Your task to perform on an android device: check out phone information Image 0: 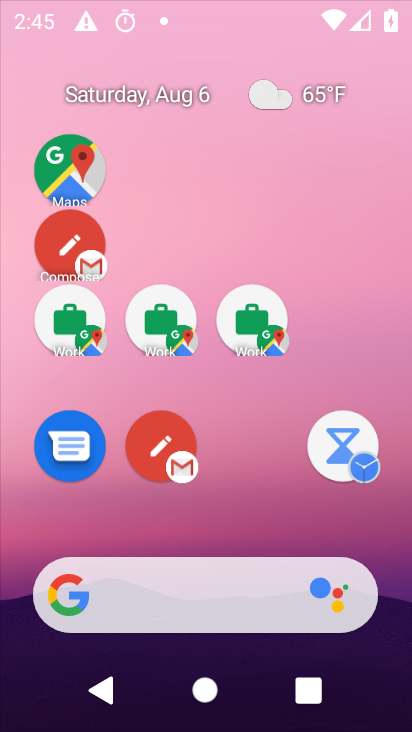
Step 0: drag from (221, 317) to (243, 291)
Your task to perform on an android device: check out phone information Image 1: 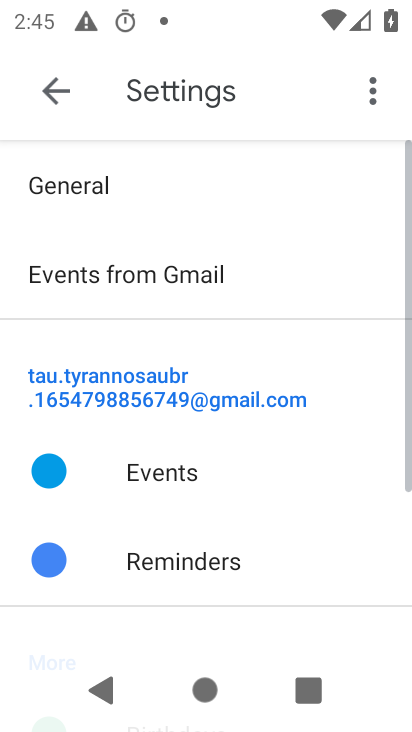
Step 1: drag from (244, 507) to (214, 322)
Your task to perform on an android device: check out phone information Image 2: 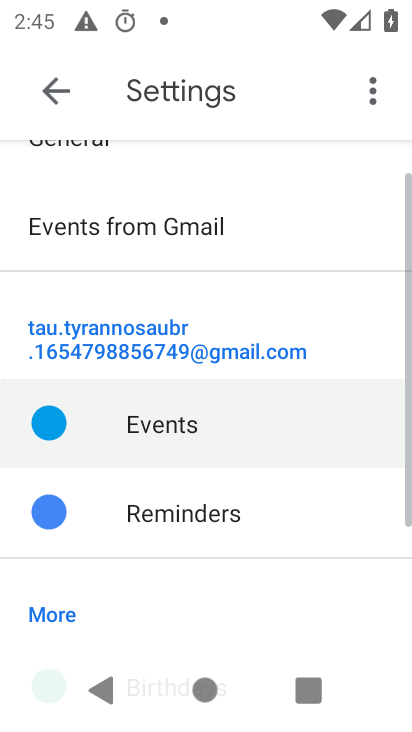
Step 2: drag from (223, 477) to (224, 392)
Your task to perform on an android device: check out phone information Image 3: 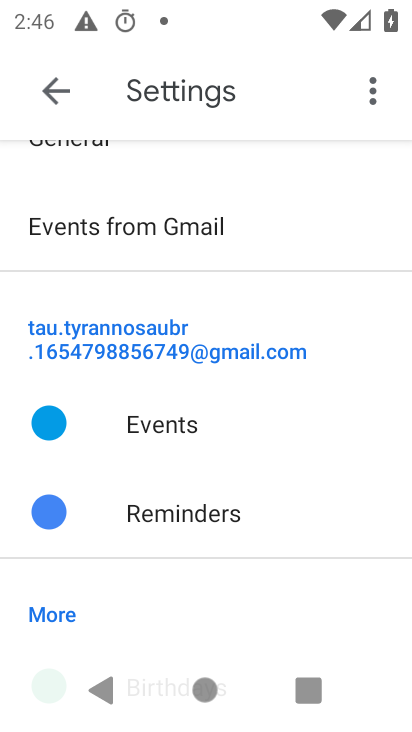
Step 3: click (46, 98)
Your task to perform on an android device: check out phone information Image 4: 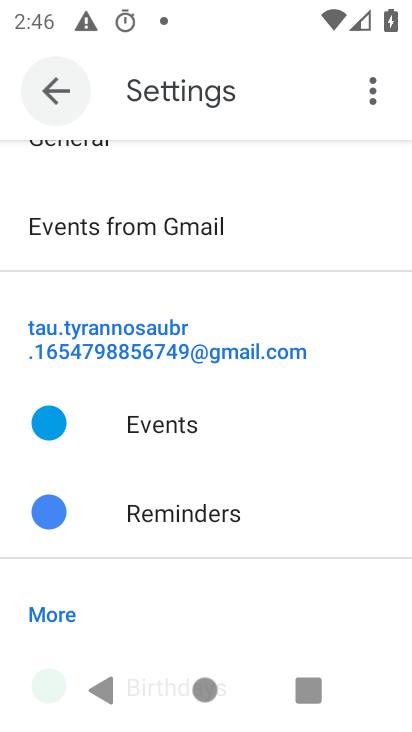
Step 4: click (48, 93)
Your task to perform on an android device: check out phone information Image 5: 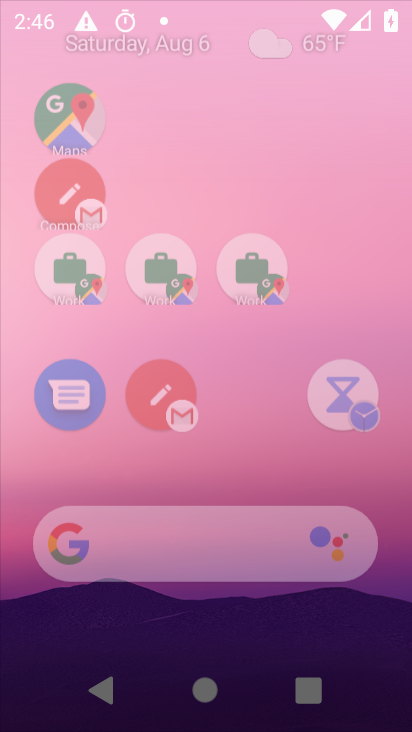
Step 5: click (49, 93)
Your task to perform on an android device: check out phone information Image 6: 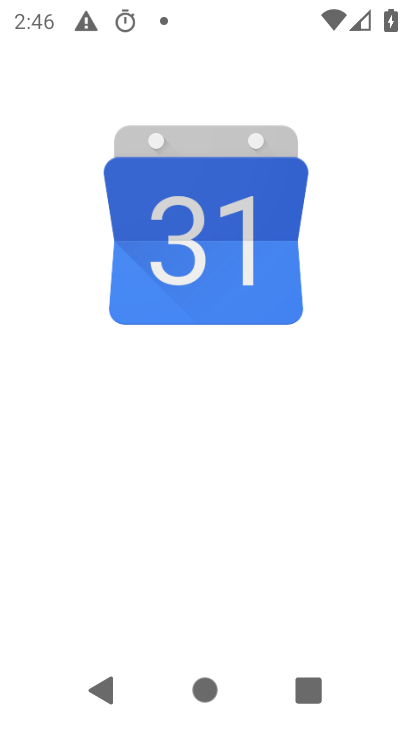
Step 6: drag from (284, 652) to (224, 103)
Your task to perform on an android device: check out phone information Image 7: 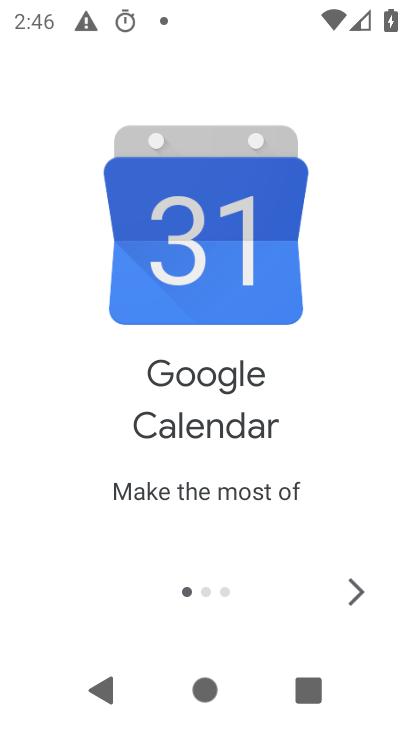
Step 7: drag from (316, 545) to (245, 3)
Your task to perform on an android device: check out phone information Image 8: 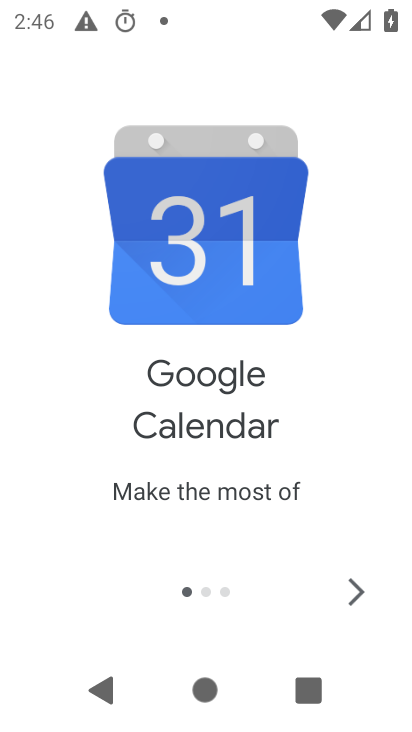
Step 8: drag from (300, 361) to (253, 29)
Your task to perform on an android device: check out phone information Image 9: 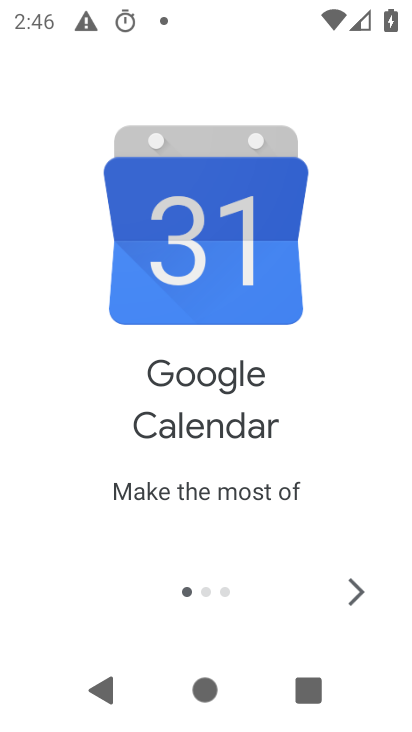
Step 9: click (363, 598)
Your task to perform on an android device: check out phone information Image 10: 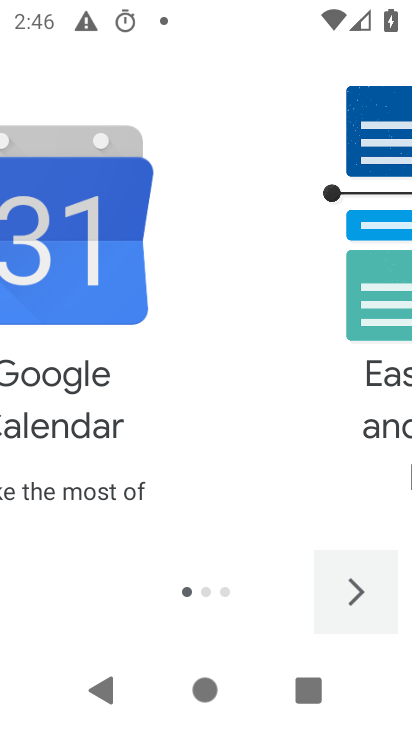
Step 10: click (363, 597)
Your task to perform on an android device: check out phone information Image 11: 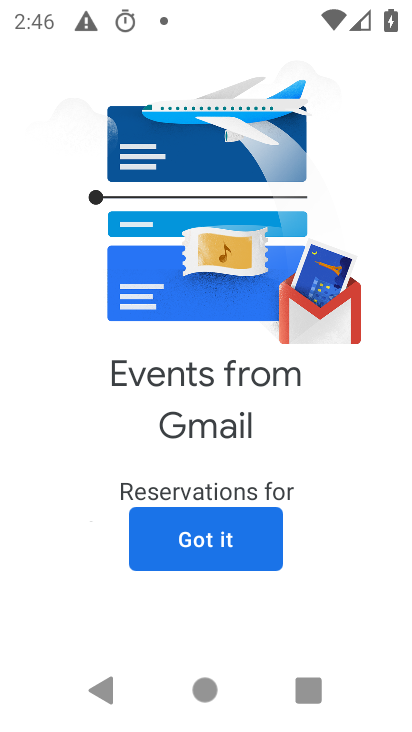
Step 11: click (192, 547)
Your task to perform on an android device: check out phone information Image 12: 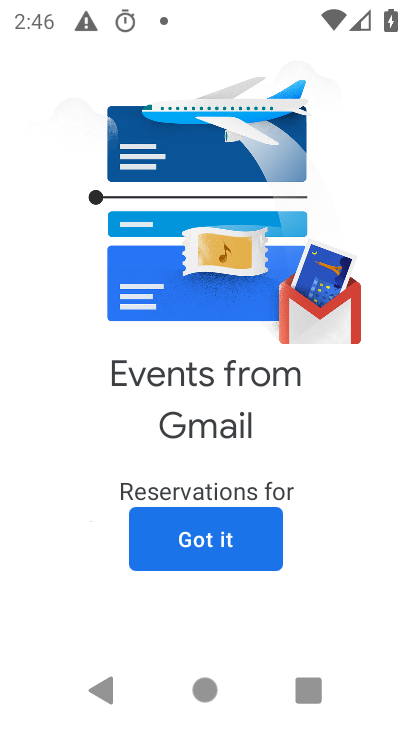
Step 12: click (211, 530)
Your task to perform on an android device: check out phone information Image 13: 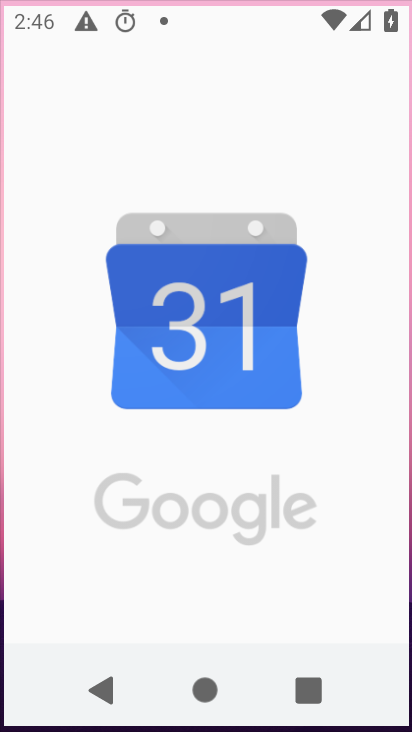
Step 13: click (216, 532)
Your task to perform on an android device: check out phone information Image 14: 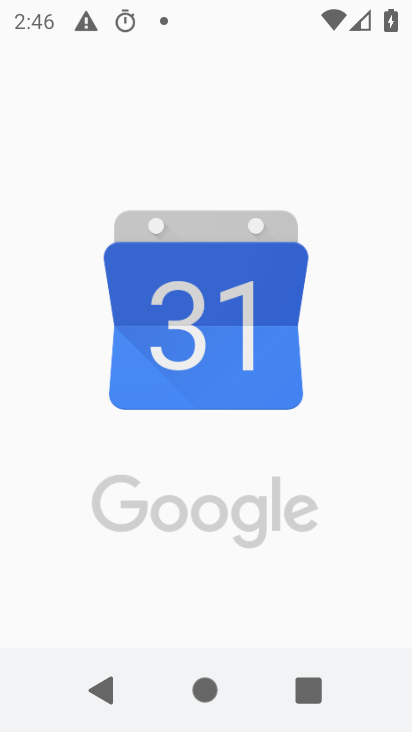
Step 14: click (216, 532)
Your task to perform on an android device: check out phone information Image 15: 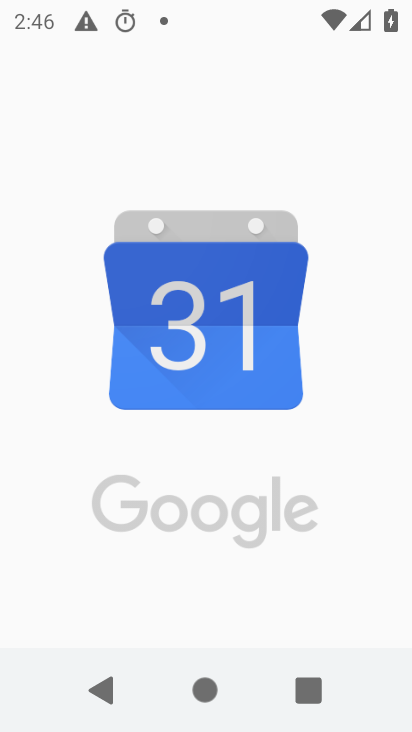
Step 15: drag from (216, 532) to (227, 499)
Your task to perform on an android device: check out phone information Image 16: 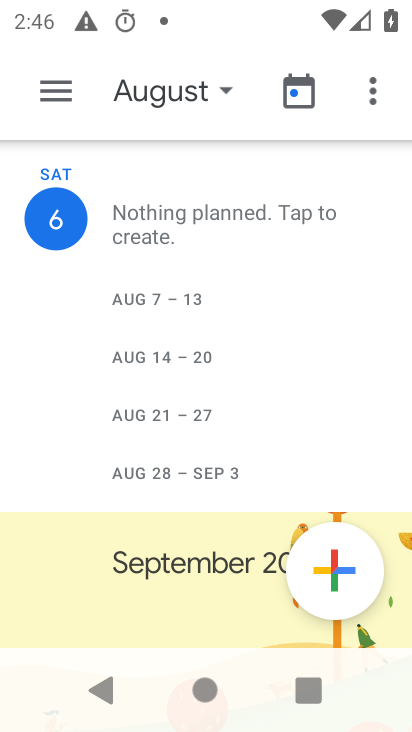
Step 16: press back button
Your task to perform on an android device: check out phone information Image 17: 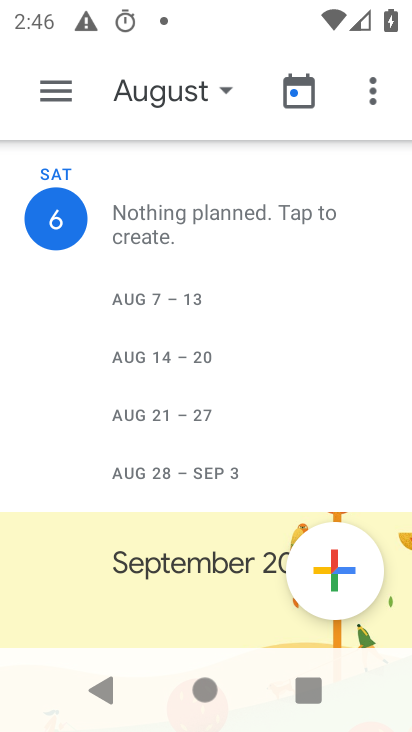
Step 17: press back button
Your task to perform on an android device: check out phone information Image 18: 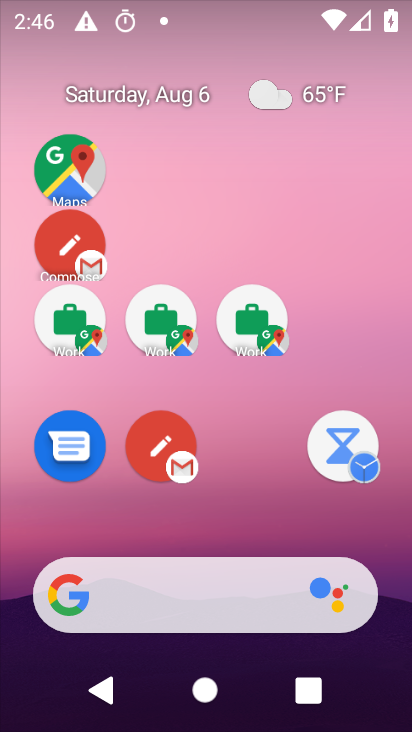
Step 18: drag from (253, 442) to (210, 217)
Your task to perform on an android device: check out phone information Image 19: 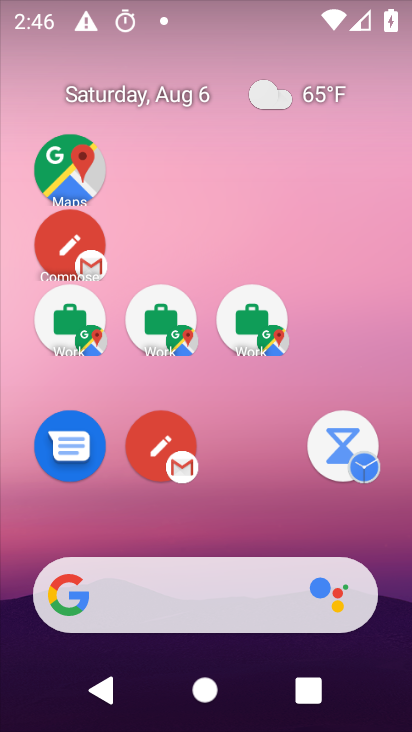
Step 19: drag from (238, 494) to (239, 202)
Your task to perform on an android device: check out phone information Image 20: 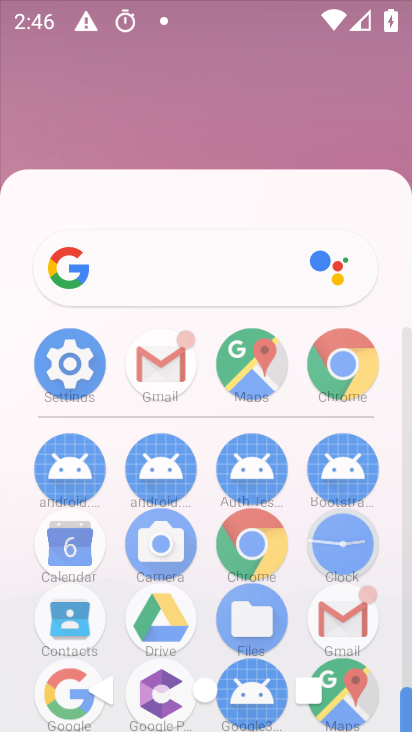
Step 20: drag from (238, 253) to (218, 64)
Your task to perform on an android device: check out phone information Image 21: 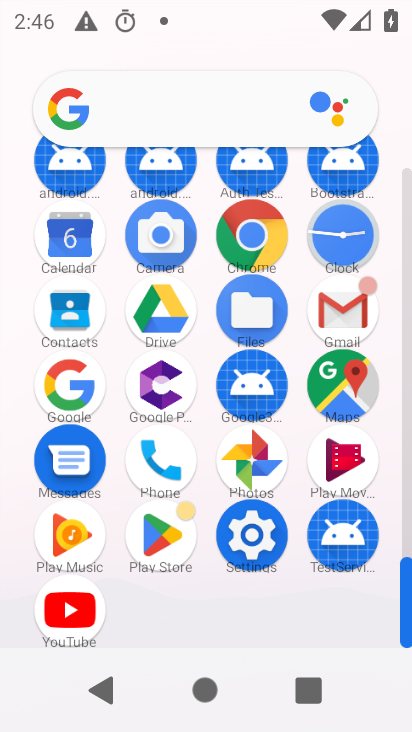
Step 21: click (255, 543)
Your task to perform on an android device: check out phone information Image 22: 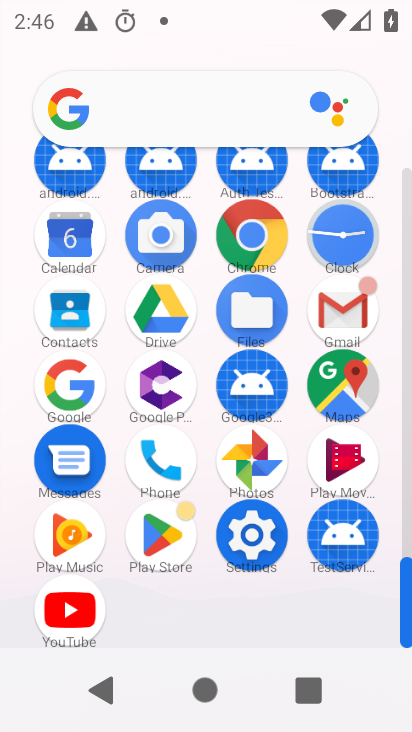
Step 22: click (258, 548)
Your task to perform on an android device: check out phone information Image 23: 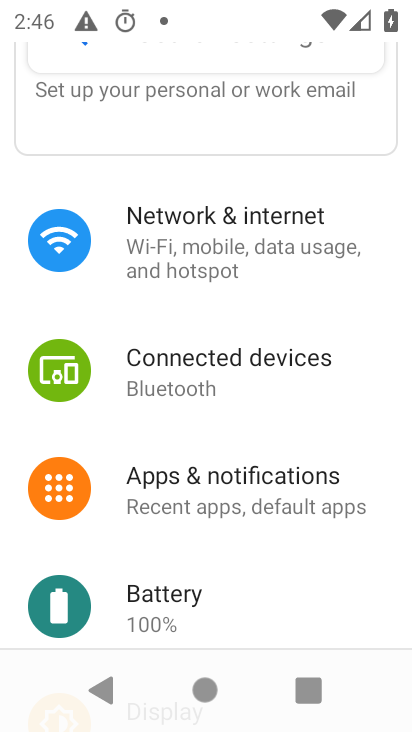
Step 23: drag from (180, 466) to (150, 265)
Your task to perform on an android device: check out phone information Image 24: 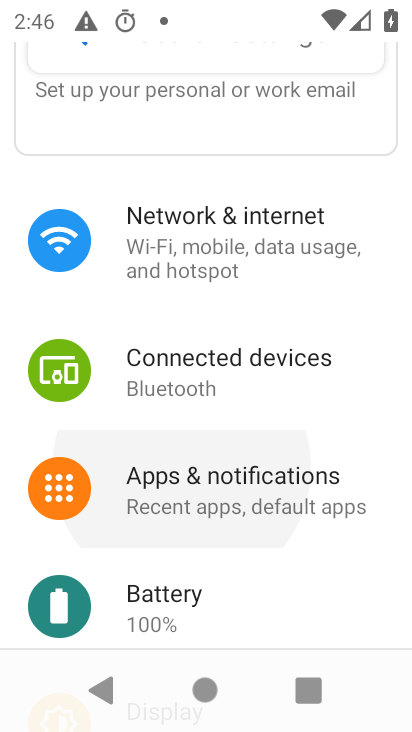
Step 24: drag from (170, 312) to (162, 263)
Your task to perform on an android device: check out phone information Image 25: 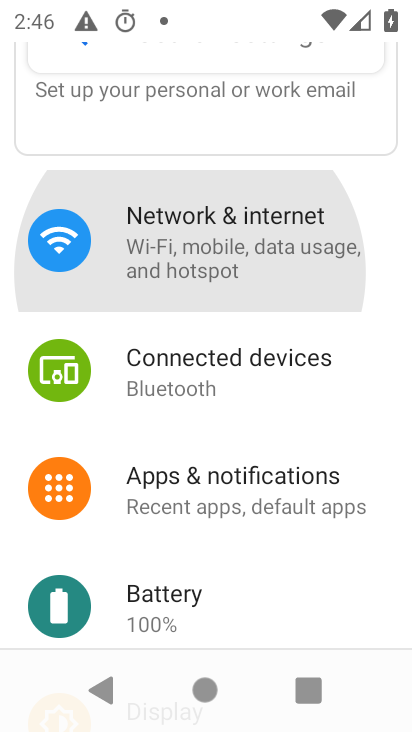
Step 25: drag from (220, 476) to (205, 256)
Your task to perform on an android device: check out phone information Image 26: 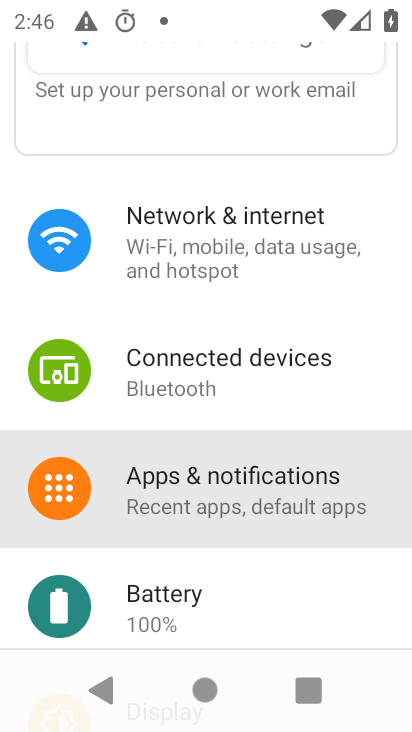
Step 26: drag from (238, 419) to (204, 291)
Your task to perform on an android device: check out phone information Image 27: 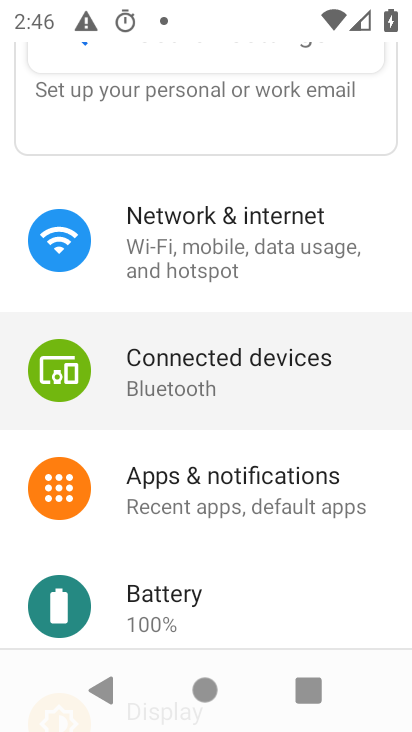
Step 27: drag from (192, 489) to (174, 354)
Your task to perform on an android device: check out phone information Image 28: 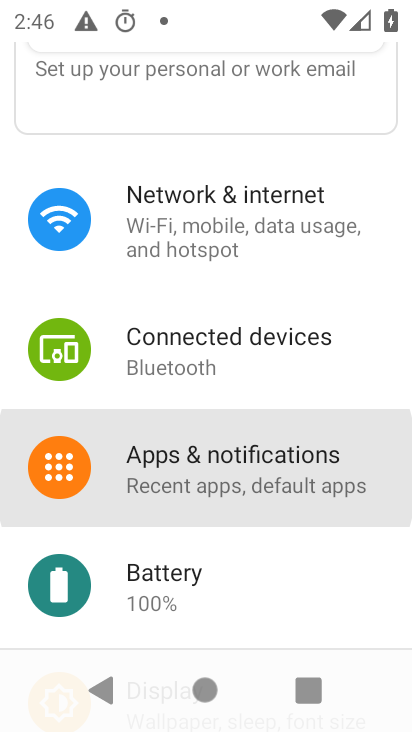
Step 28: drag from (210, 540) to (197, 352)
Your task to perform on an android device: check out phone information Image 29: 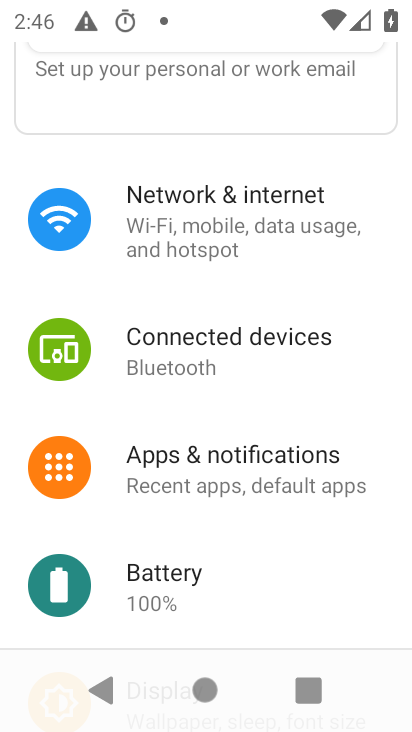
Step 29: drag from (200, 541) to (223, 274)
Your task to perform on an android device: check out phone information Image 30: 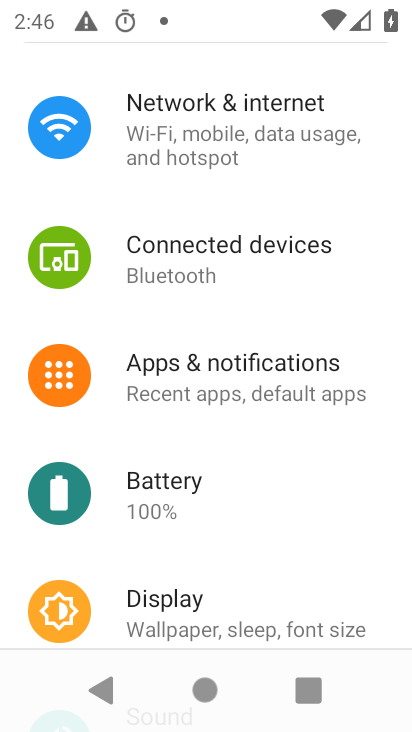
Step 30: drag from (269, 538) to (249, 150)
Your task to perform on an android device: check out phone information Image 31: 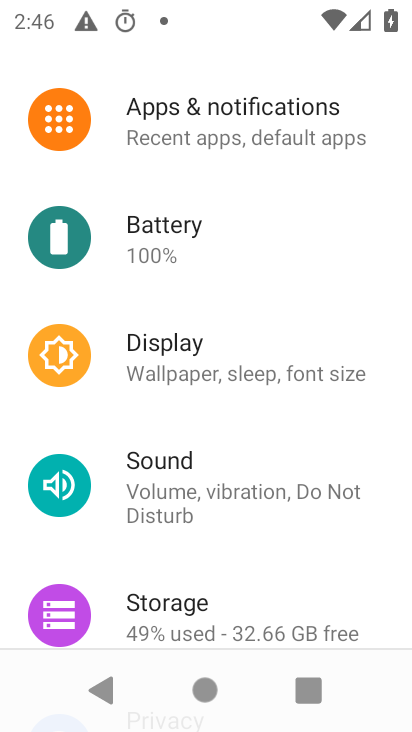
Step 31: drag from (192, 259) to (247, 257)
Your task to perform on an android device: check out phone information Image 32: 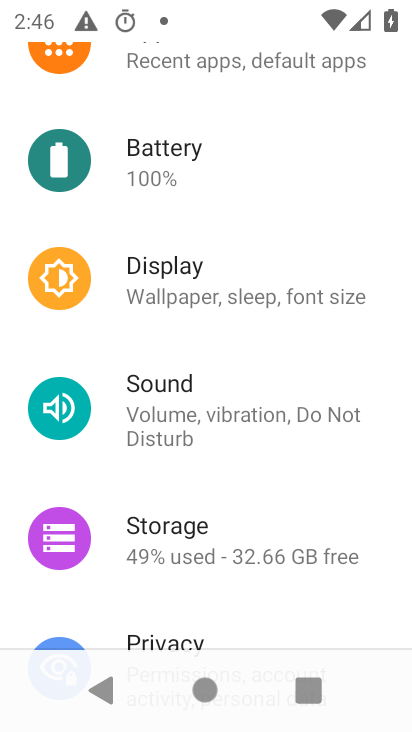
Step 32: drag from (293, 455) to (289, 270)
Your task to perform on an android device: check out phone information Image 33: 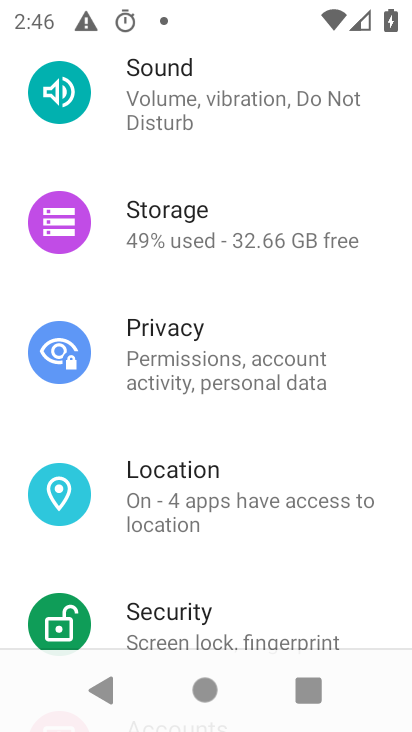
Step 33: click (170, 495)
Your task to perform on an android device: check out phone information Image 34: 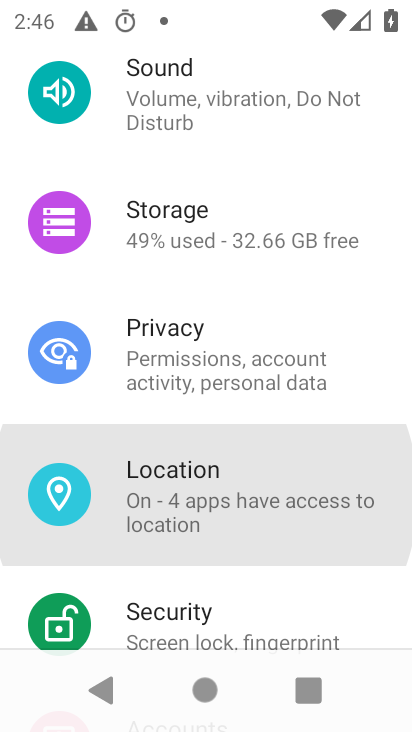
Step 34: click (170, 495)
Your task to perform on an android device: check out phone information Image 35: 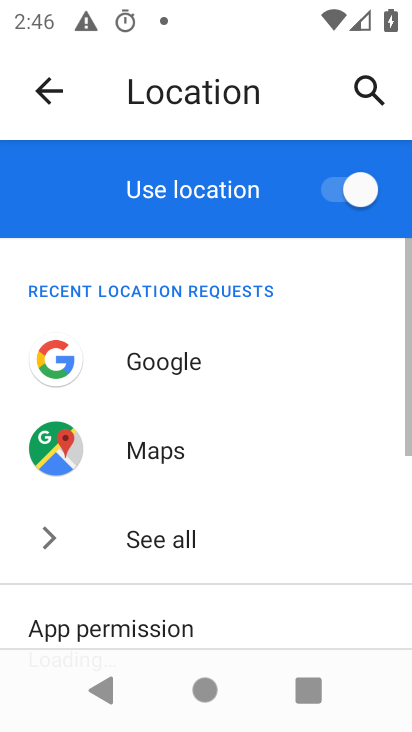
Step 35: drag from (225, 478) to (204, 278)
Your task to perform on an android device: check out phone information Image 36: 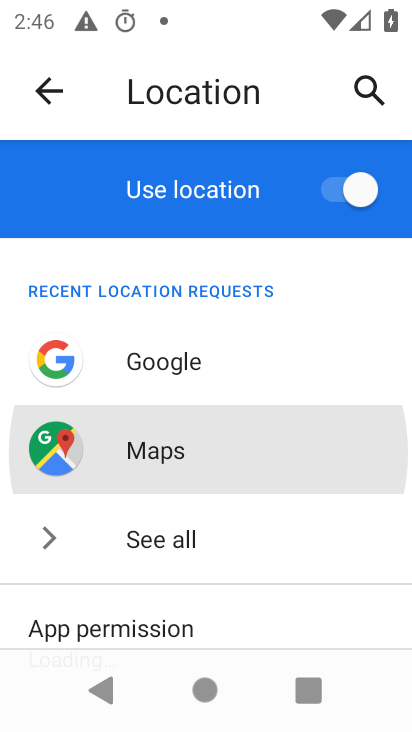
Step 36: drag from (314, 470) to (267, 321)
Your task to perform on an android device: check out phone information Image 37: 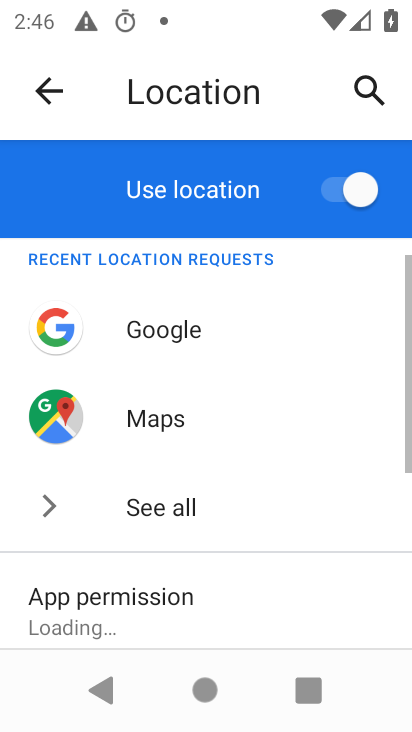
Step 37: drag from (238, 413) to (223, 170)
Your task to perform on an android device: check out phone information Image 38: 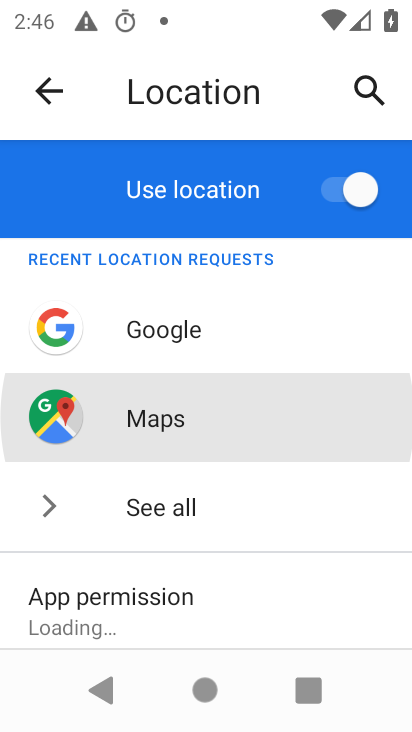
Step 38: drag from (268, 395) to (227, 120)
Your task to perform on an android device: check out phone information Image 39: 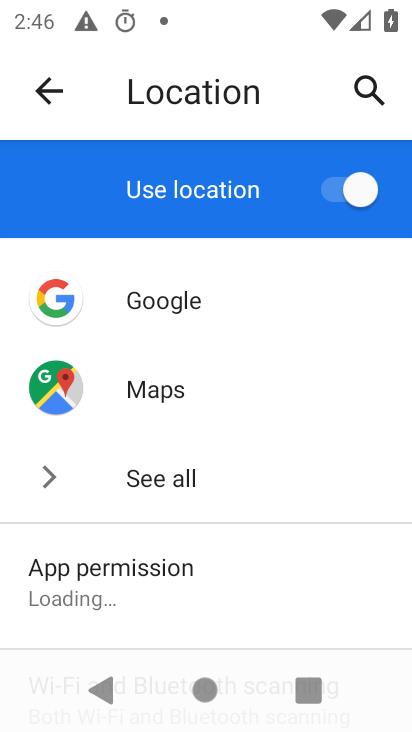
Step 39: click (76, 579)
Your task to perform on an android device: check out phone information Image 40: 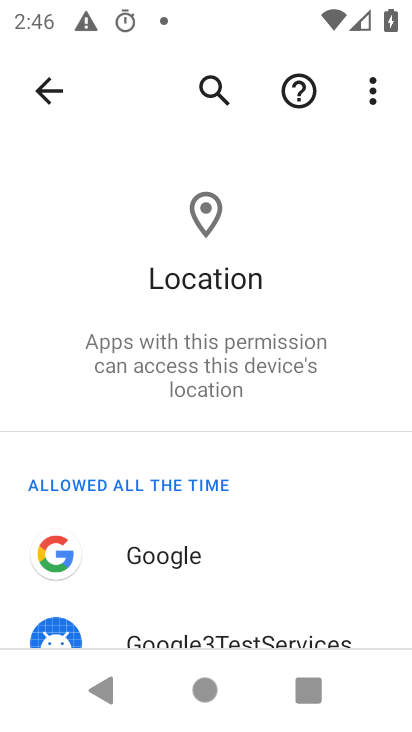
Step 40: click (260, 147)
Your task to perform on an android device: check out phone information Image 41: 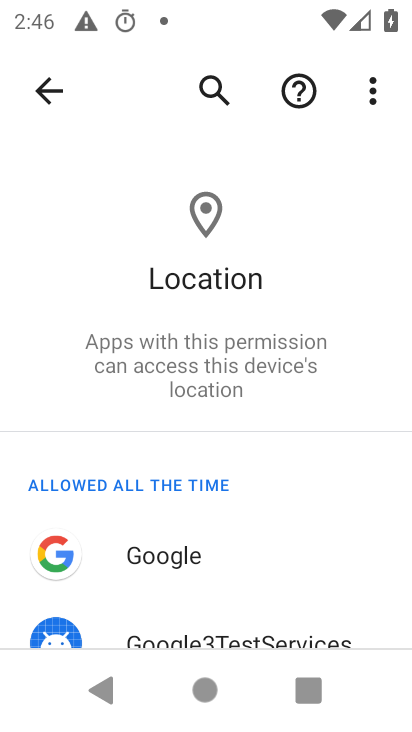
Step 41: drag from (249, 299) to (249, 105)
Your task to perform on an android device: check out phone information Image 42: 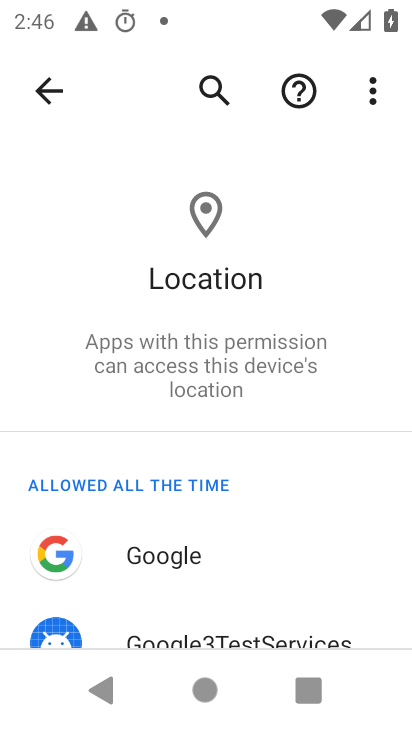
Step 42: drag from (273, 396) to (245, 155)
Your task to perform on an android device: check out phone information Image 43: 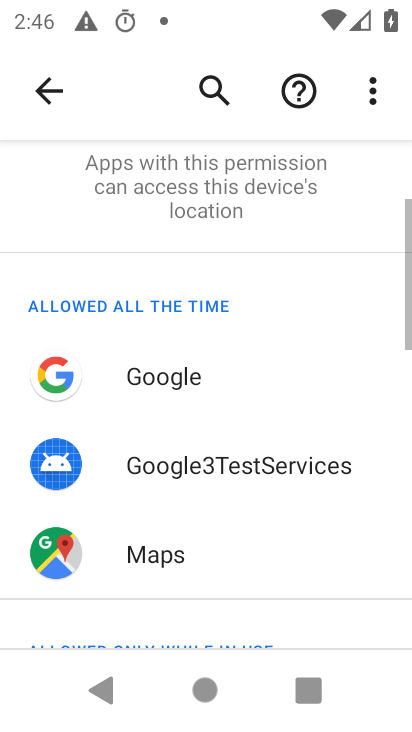
Step 43: drag from (271, 472) to (234, 229)
Your task to perform on an android device: check out phone information Image 44: 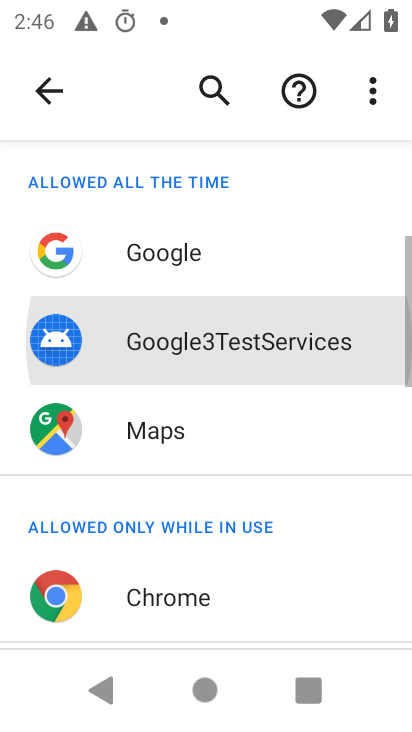
Step 44: click (190, 282)
Your task to perform on an android device: check out phone information Image 45: 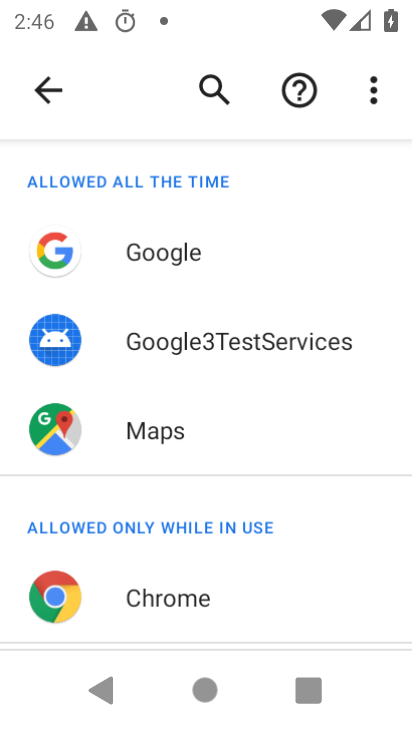
Step 45: task complete